Your task to perform on an android device: What's the weather going to be tomorrow? Image 0: 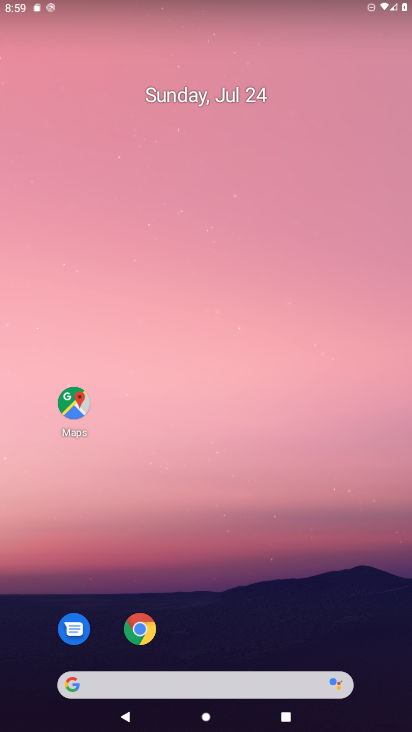
Step 0: drag from (322, 635) to (153, 39)
Your task to perform on an android device: What's the weather going to be tomorrow? Image 1: 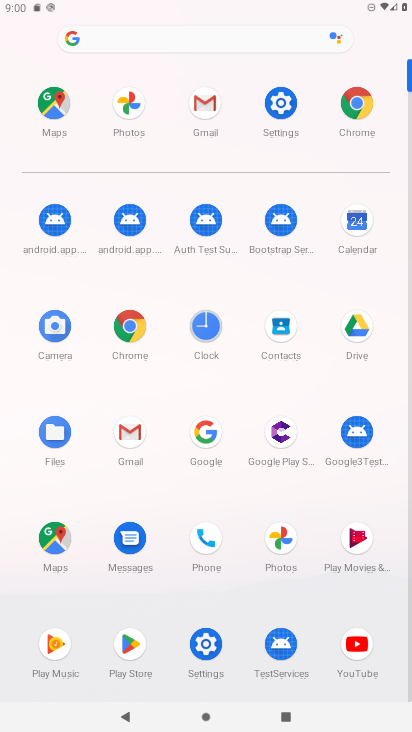
Step 1: click (204, 438)
Your task to perform on an android device: What's the weather going to be tomorrow? Image 2: 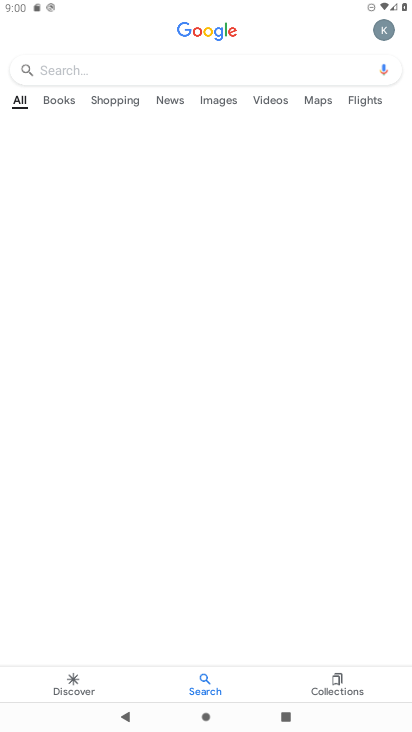
Step 2: press back button
Your task to perform on an android device: What's the weather going to be tomorrow? Image 3: 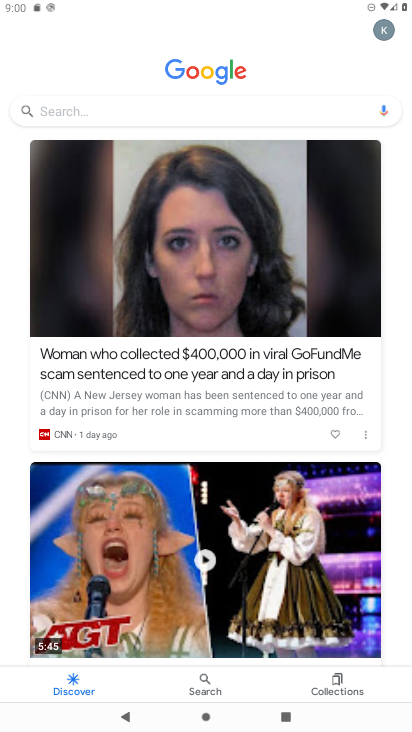
Step 3: click (65, 109)
Your task to perform on an android device: What's the weather going to be tomorrow? Image 4: 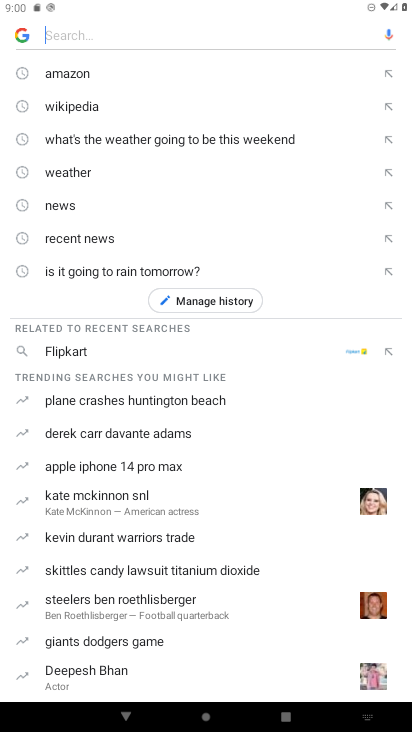
Step 4: type "What's the weather going to be tomorrow?"
Your task to perform on an android device: What's the weather going to be tomorrow? Image 5: 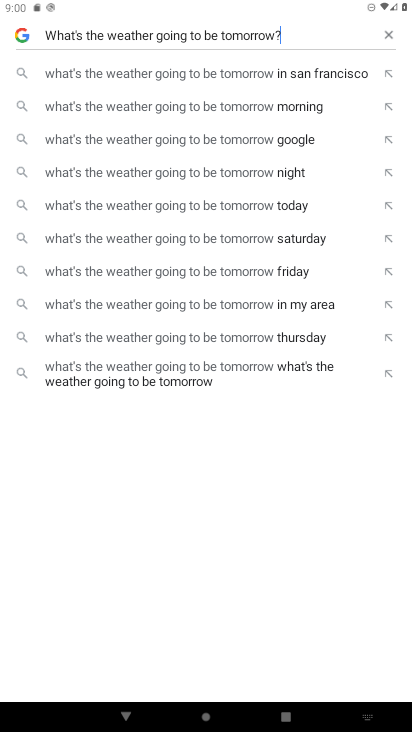
Step 5: click (127, 152)
Your task to perform on an android device: What's the weather going to be tomorrow? Image 6: 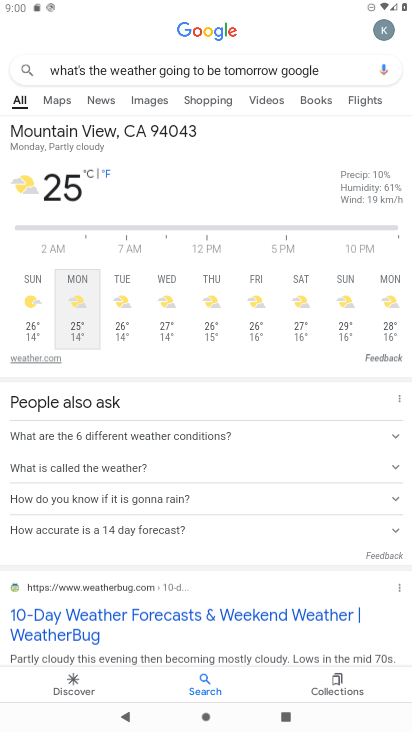
Step 6: task complete